Your task to perform on an android device: Show me popular games on the Play Store Image 0: 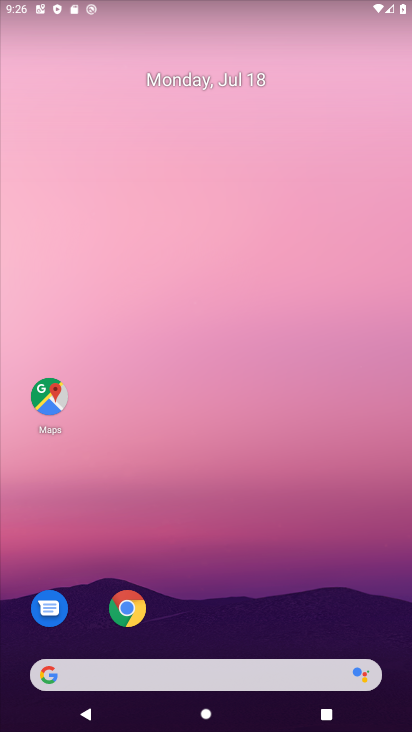
Step 0: drag from (240, 585) to (253, 71)
Your task to perform on an android device: Show me popular games on the Play Store Image 1: 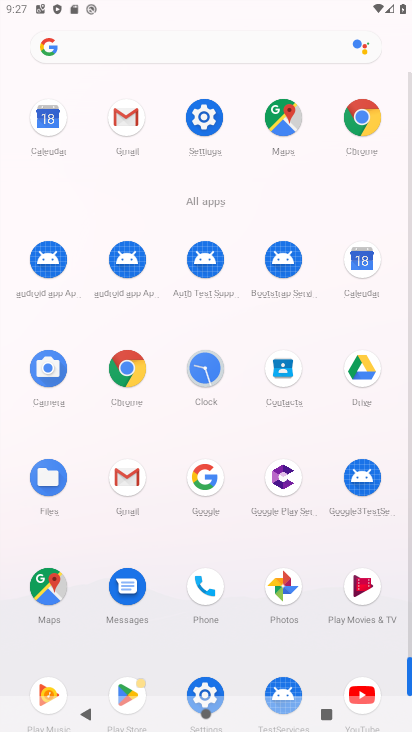
Step 1: drag from (122, 651) to (140, 523)
Your task to perform on an android device: Show me popular games on the Play Store Image 2: 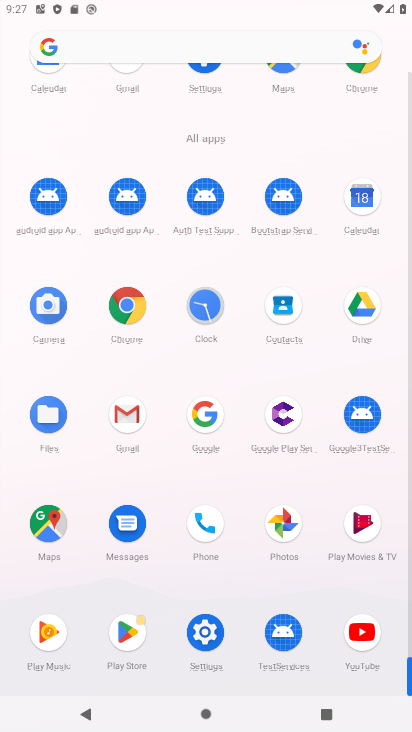
Step 2: click (137, 640)
Your task to perform on an android device: Show me popular games on the Play Store Image 3: 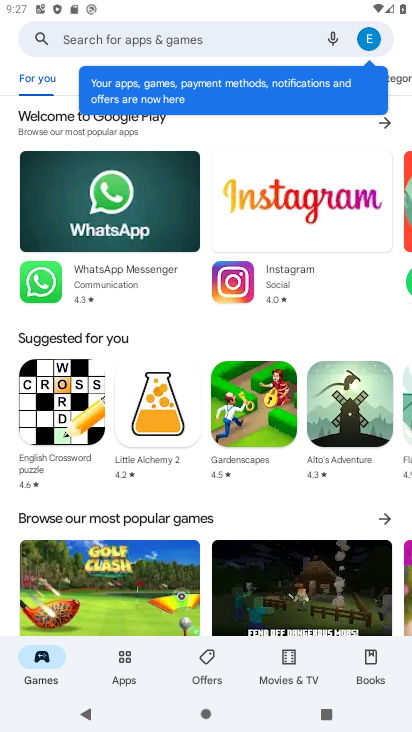
Step 3: drag from (74, 78) to (16, 67)
Your task to perform on an android device: Show me popular games on the Play Store Image 4: 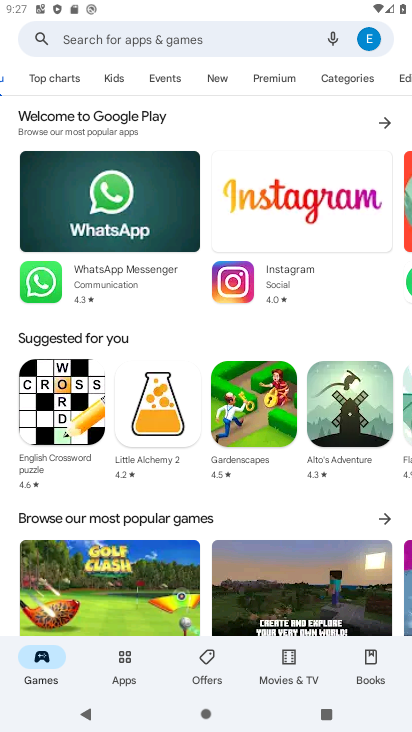
Step 4: click (46, 82)
Your task to perform on an android device: Show me popular games on the Play Store Image 5: 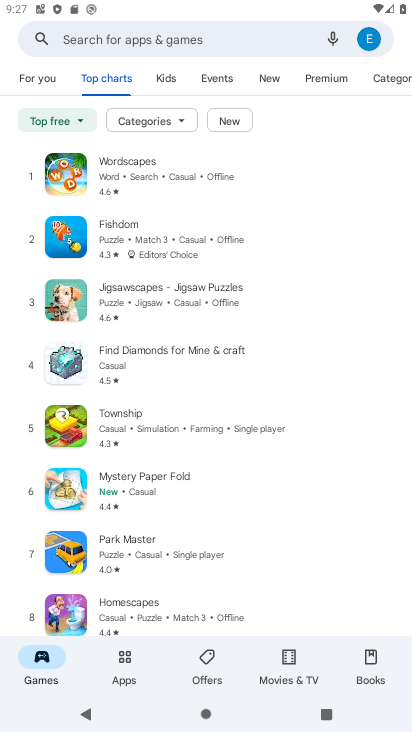
Step 5: task complete